Your task to perform on an android device: find which apps use the phone's location Image 0: 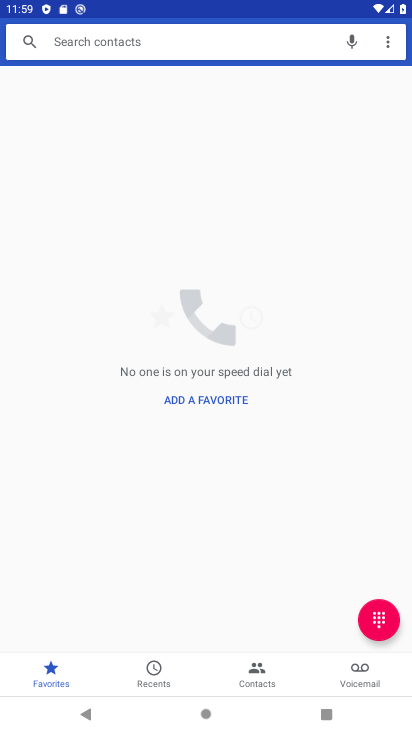
Step 0: press home button
Your task to perform on an android device: find which apps use the phone's location Image 1: 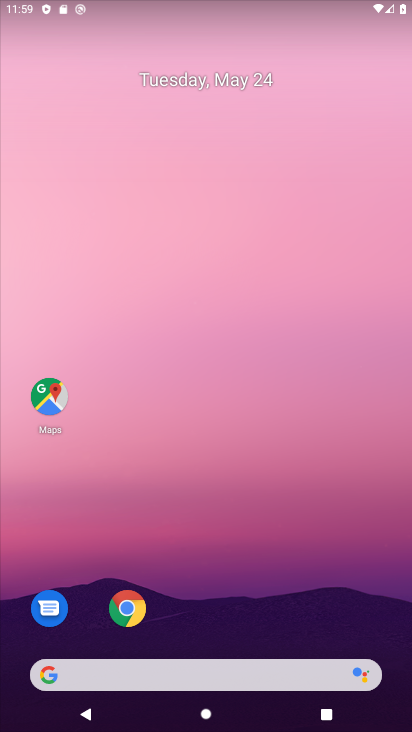
Step 1: drag from (296, 586) to (291, 125)
Your task to perform on an android device: find which apps use the phone's location Image 2: 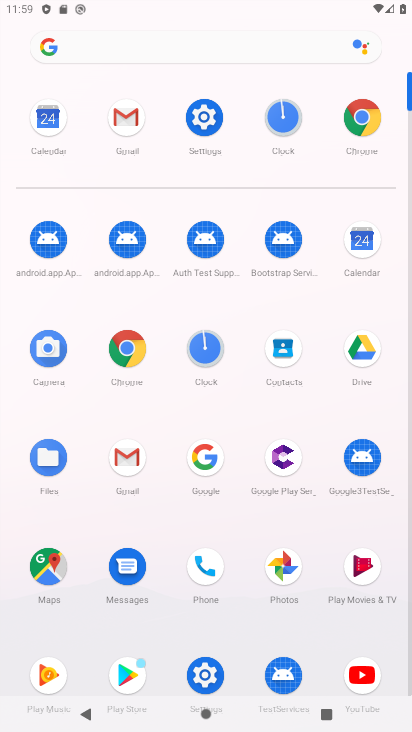
Step 2: click (217, 133)
Your task to perform on an android device: find which apps use the phone's location Image 3: 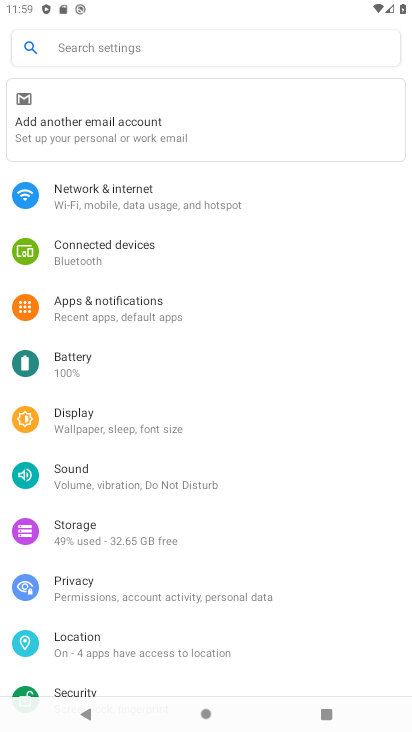
Step 3: click (200, 632)
Your task to perform on an android device: find which apps use the phone's location Image 4: 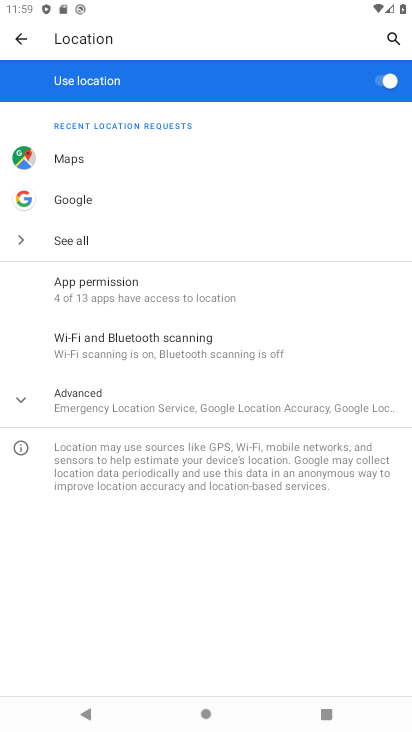
Step 4: click (157, 426)
Your task to perform on an android device: find which apps use the phone's location Image 5: 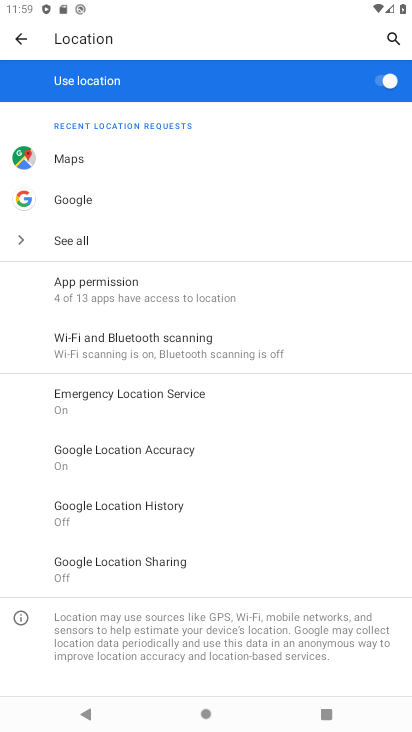
Step 5: click (146, 227)
Your task to perform on an android device: find which apps use the phone's location Image 6: 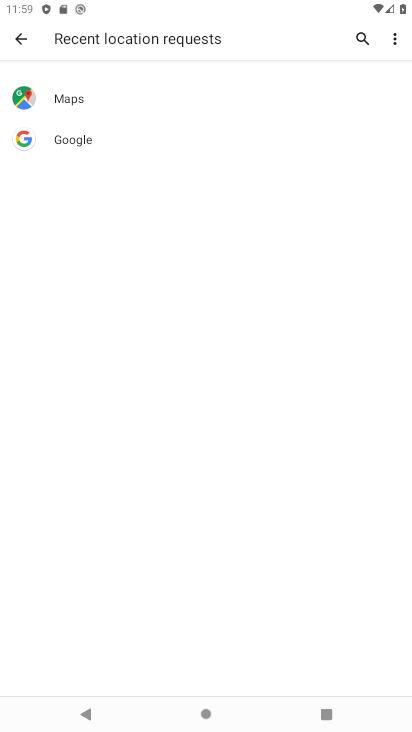
Step 6: task complete